Your task to perform on an android device: Open the map Image 0: 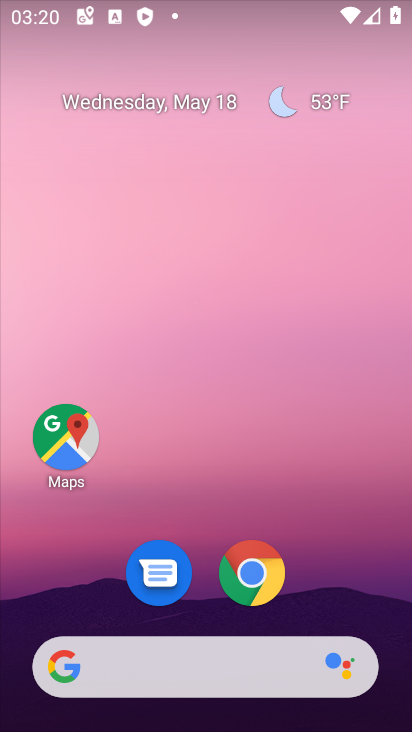
Step 0: click (80, 431)
Your task to perform on an android device: Open the map Image 1: 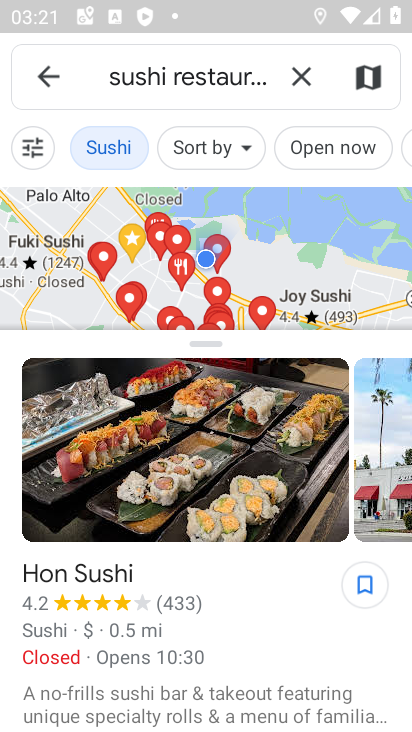
Step 1: task complete